Your task to perform on an android device: Go to Reddit.com Image 0: 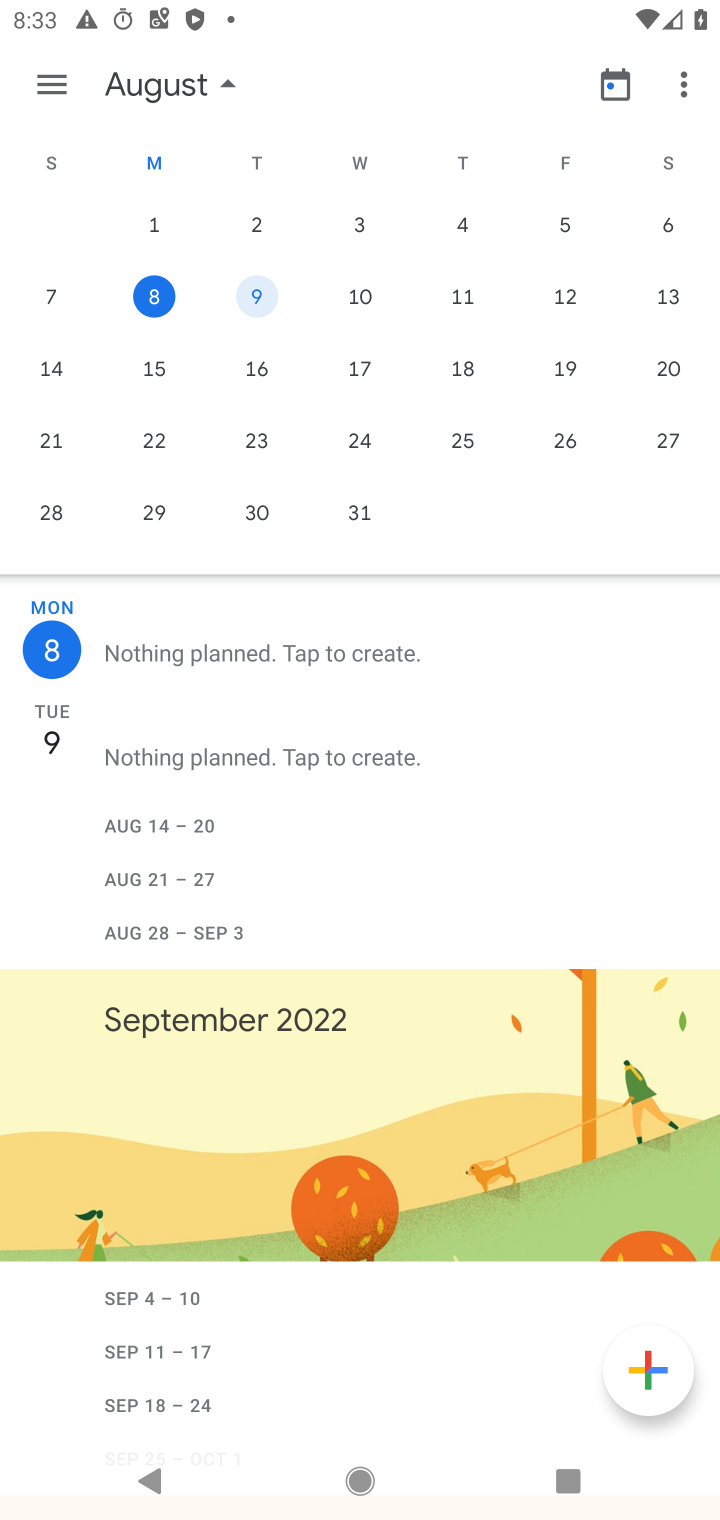
Step 0: press home button
Your task to perform on an android device: Go to Reddit.com Image 1: 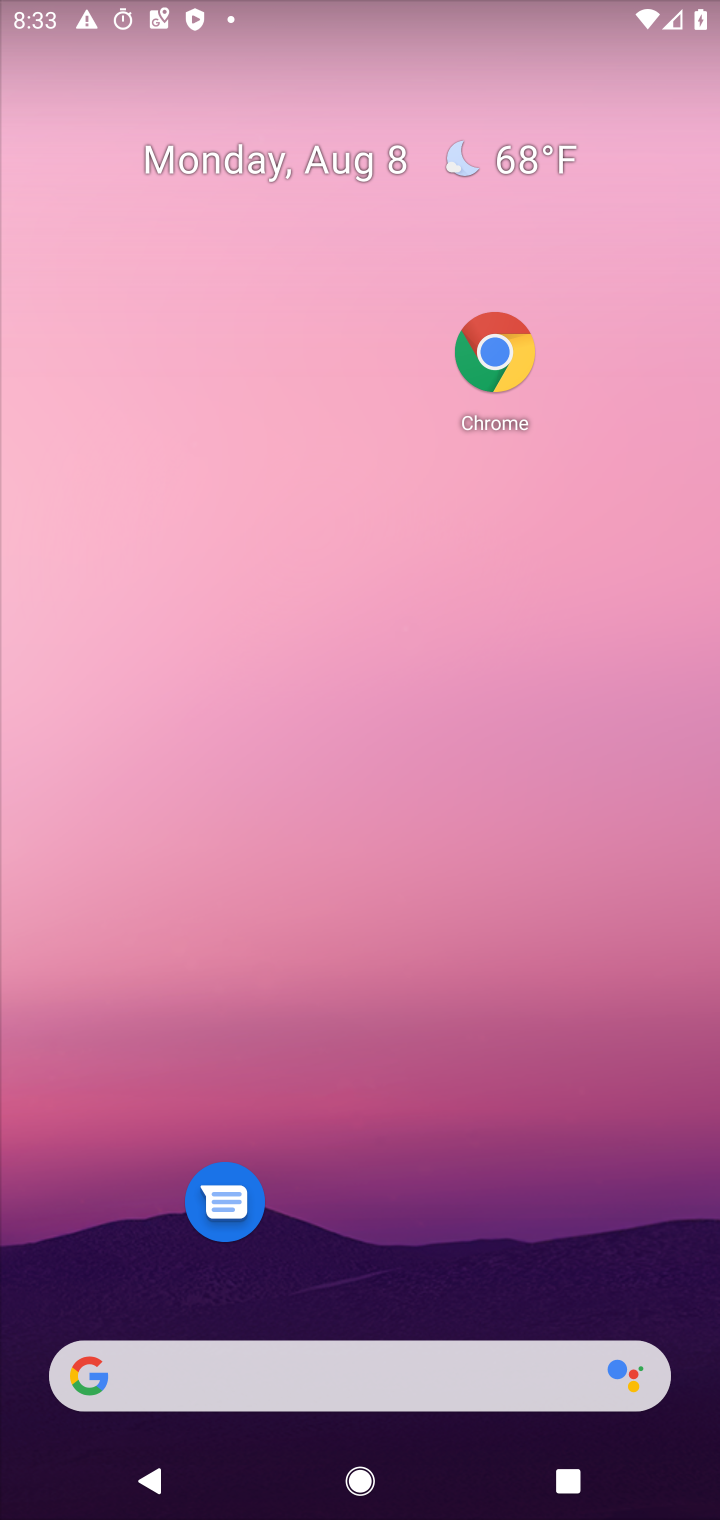
Step 1: click (499, 345)
Your task to perform on an android device: Go to Reddit.com Image 2: 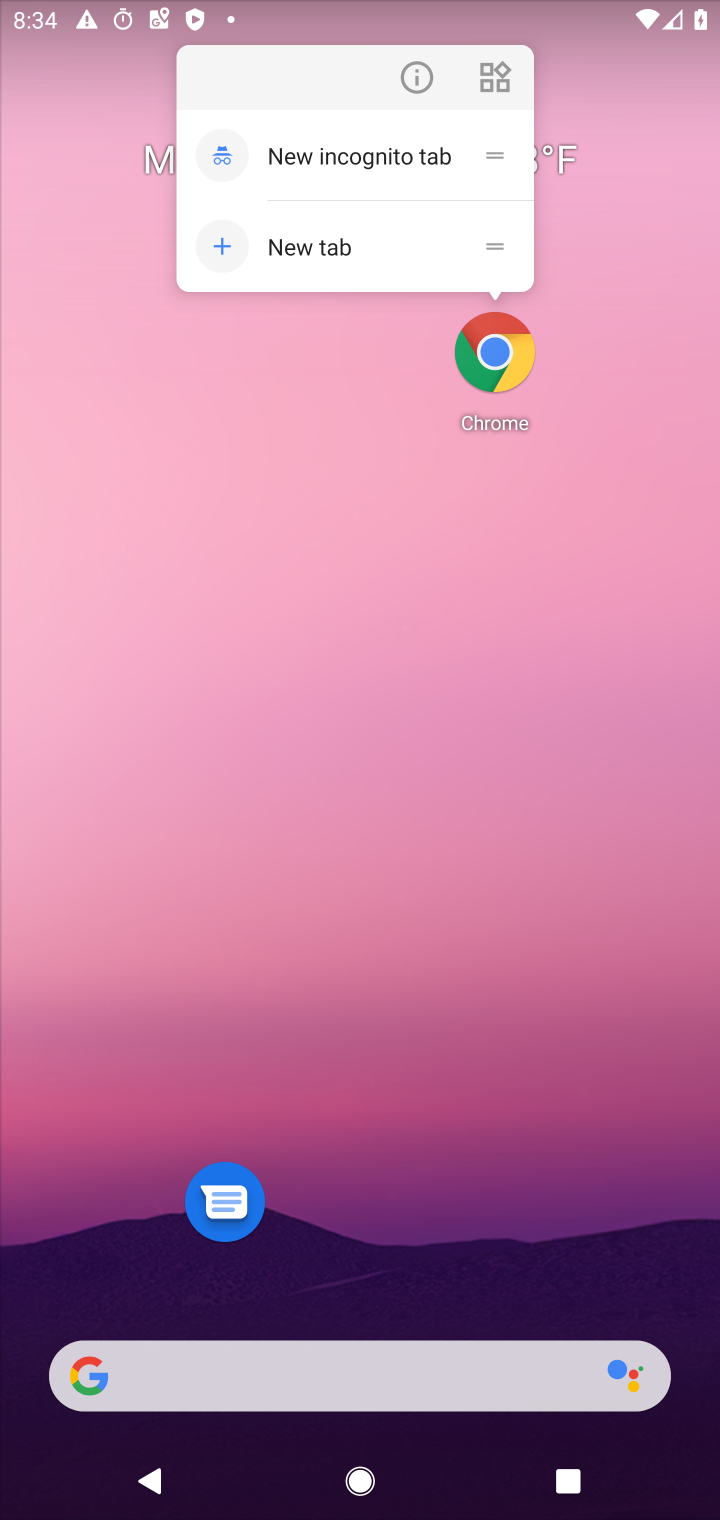
Step 2: click (500, 363)
Your task to perform on an android device: Go to Reddit.com Image 3: 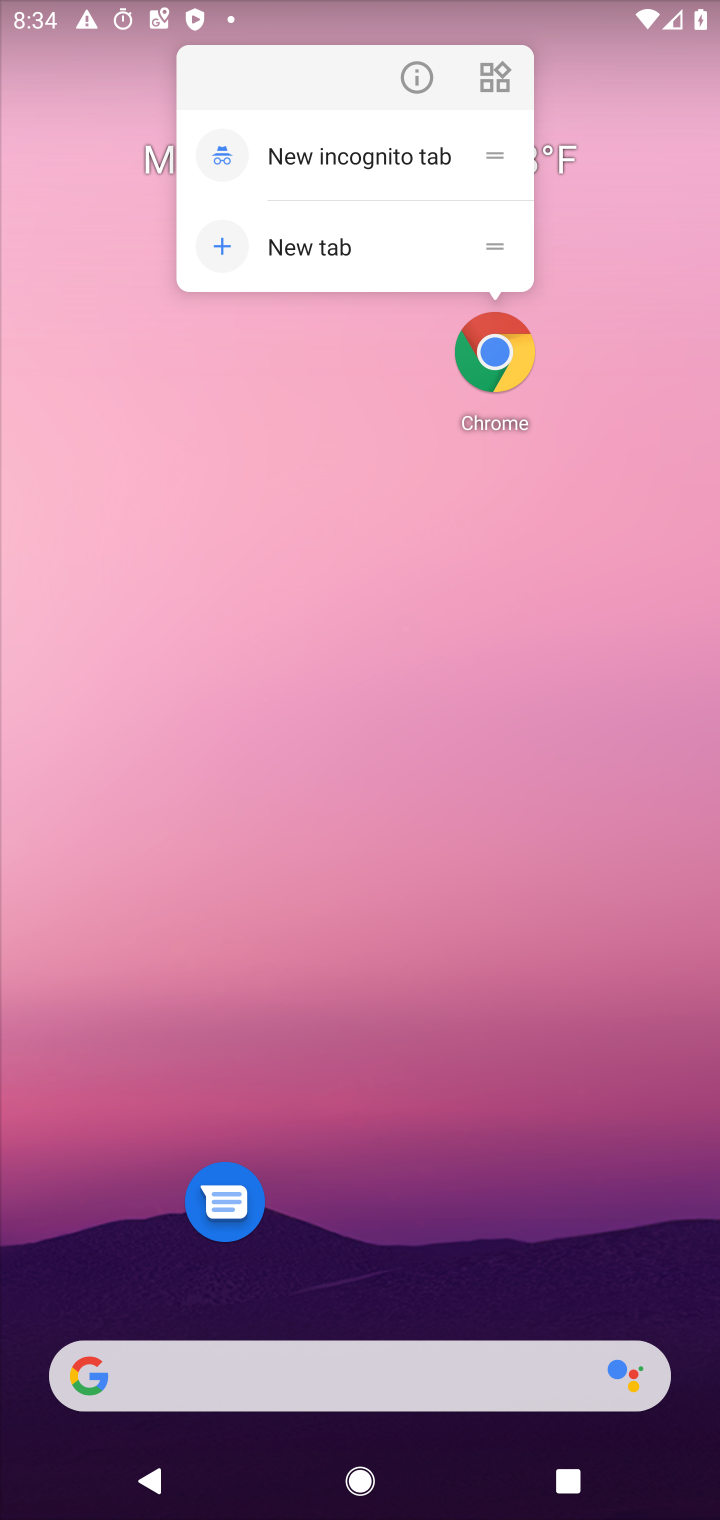
Step 3: click (505, 395)
Your task to perform on an android device: Go to Reddit.com Image 4: 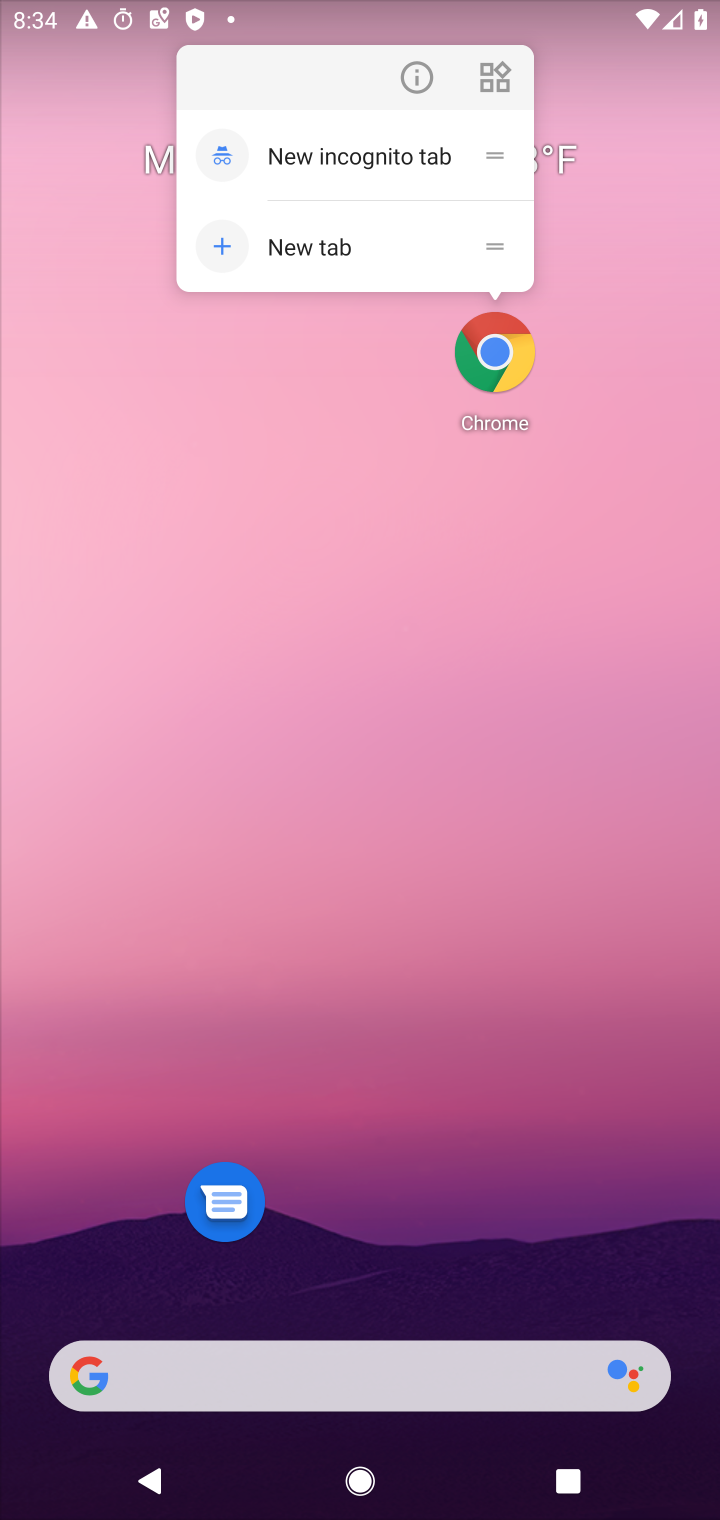
Step 4: click (516, 407)
Your task to perform on an android device: Go to Reddit.com Image 5: 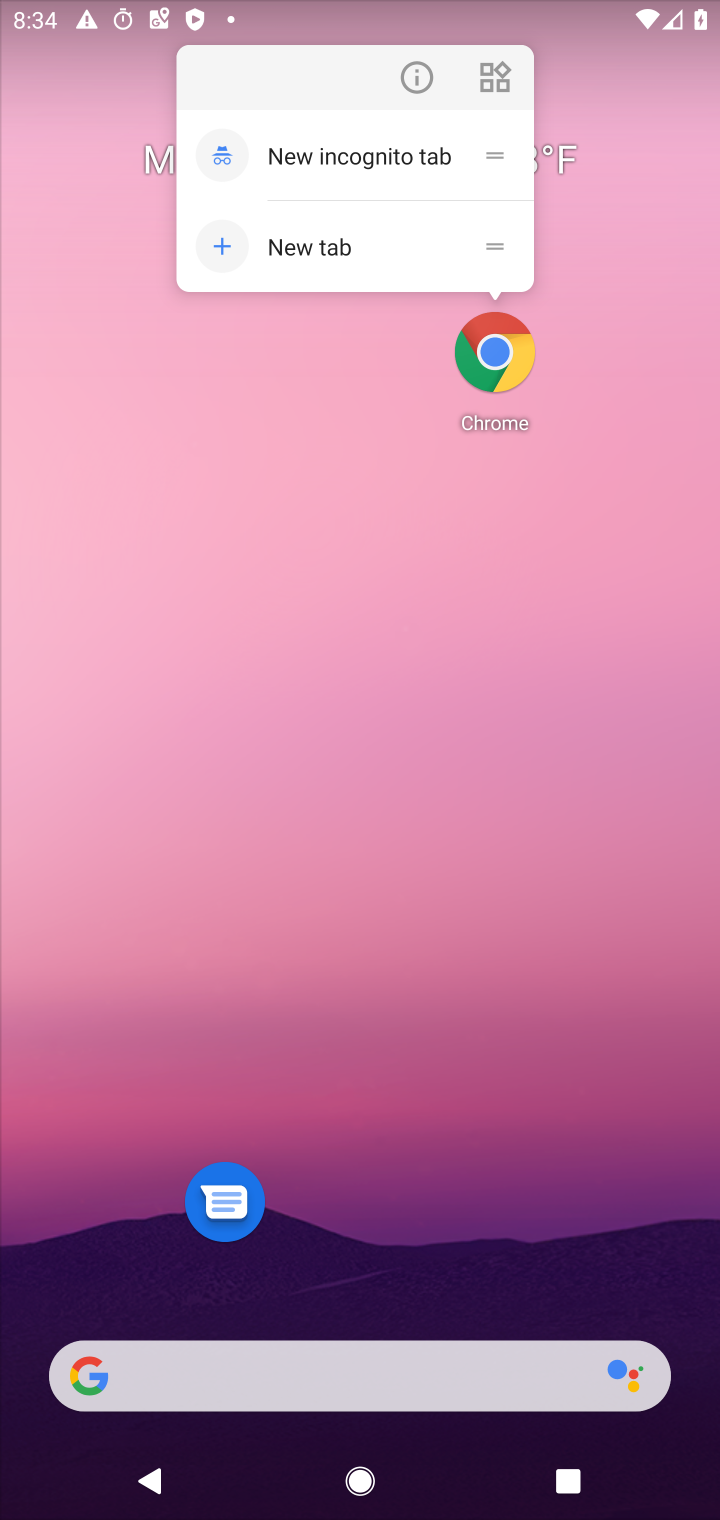
Step 5: click (518, 403)
Your task to perform on an android device: Go to Reddit.com Image 6: 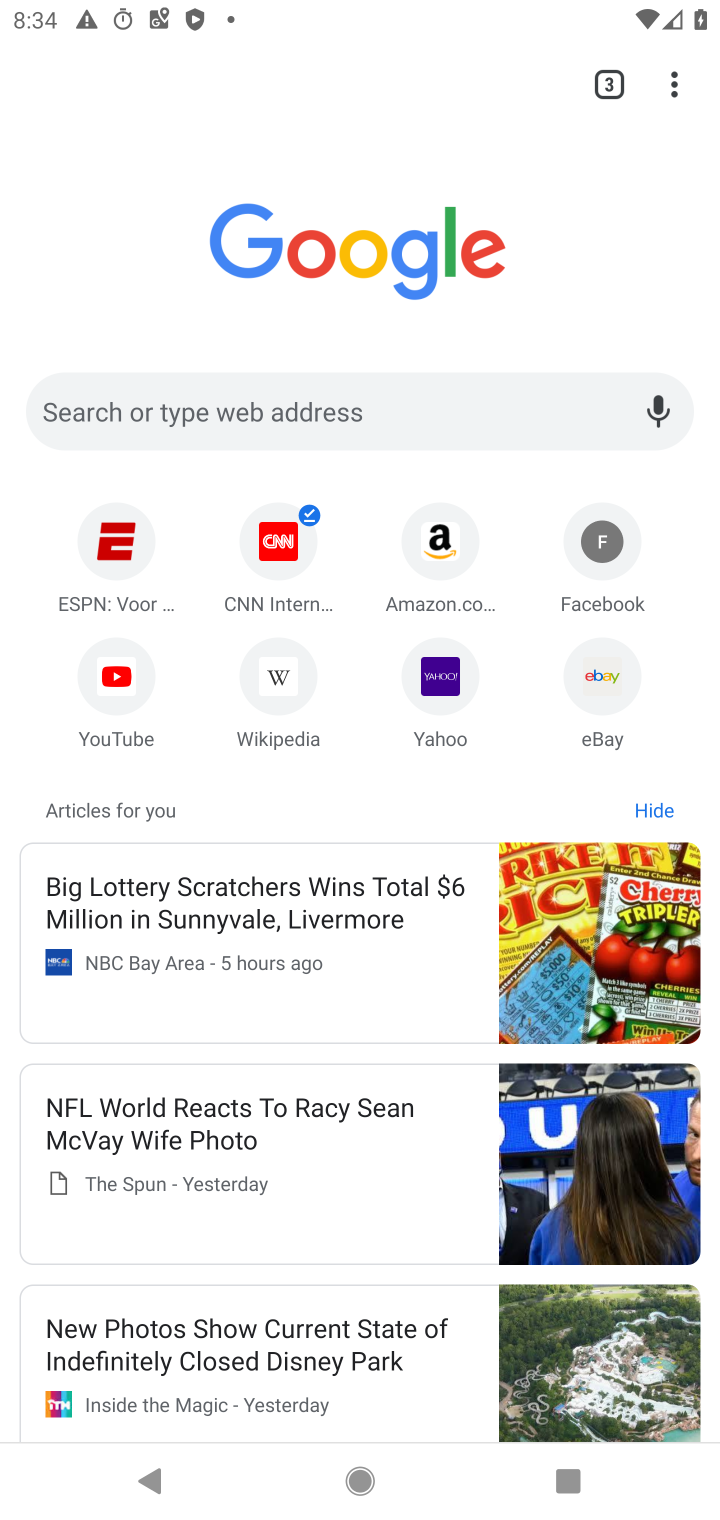
Step 6: click (418, 402)
Your task to perform on an android device: Go to Reddit.com Image 7: 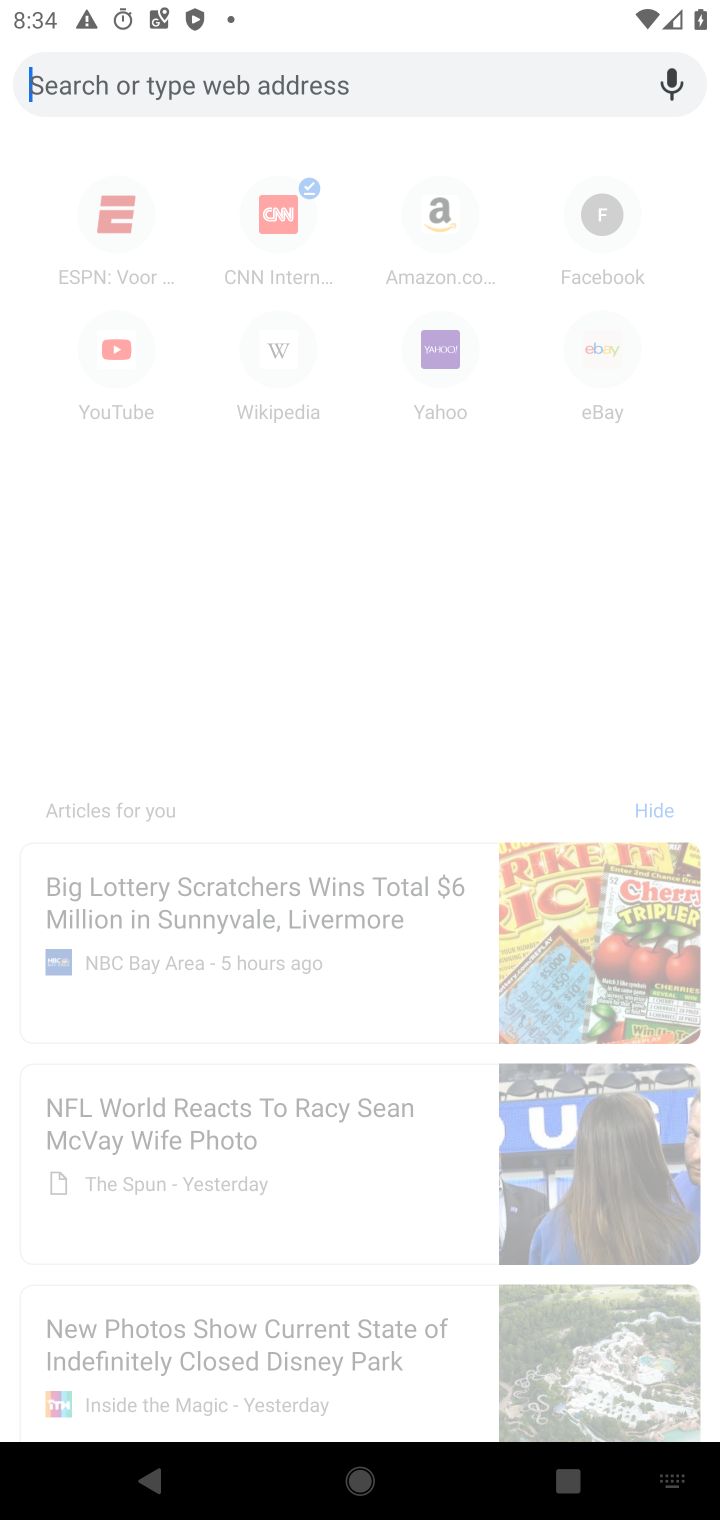
Step 7: type "reddit"
Your task to perform on an android device: Go to Reddit.com Image 8: 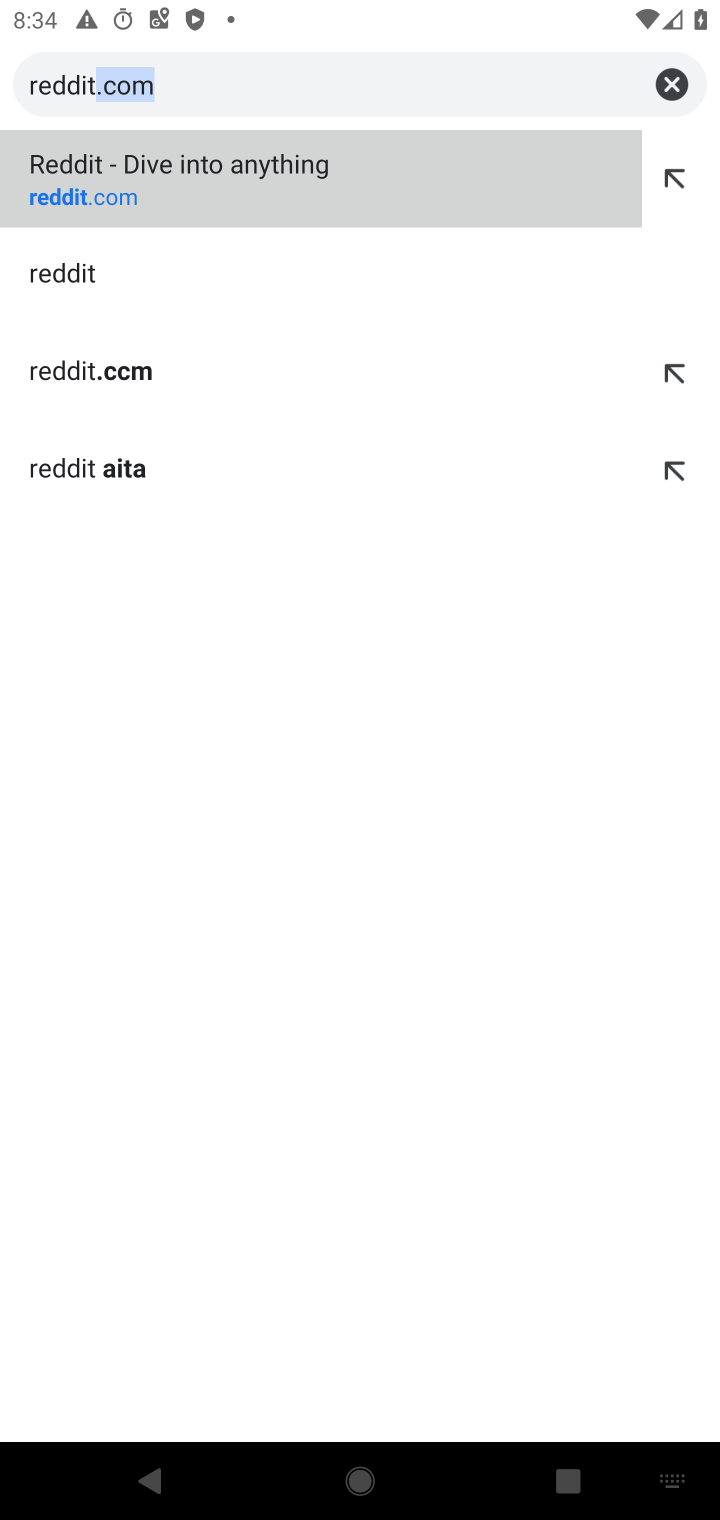
Step 8: click (301, 170)
Your task to perform on an android device: Go to Reddit.com Image 9: 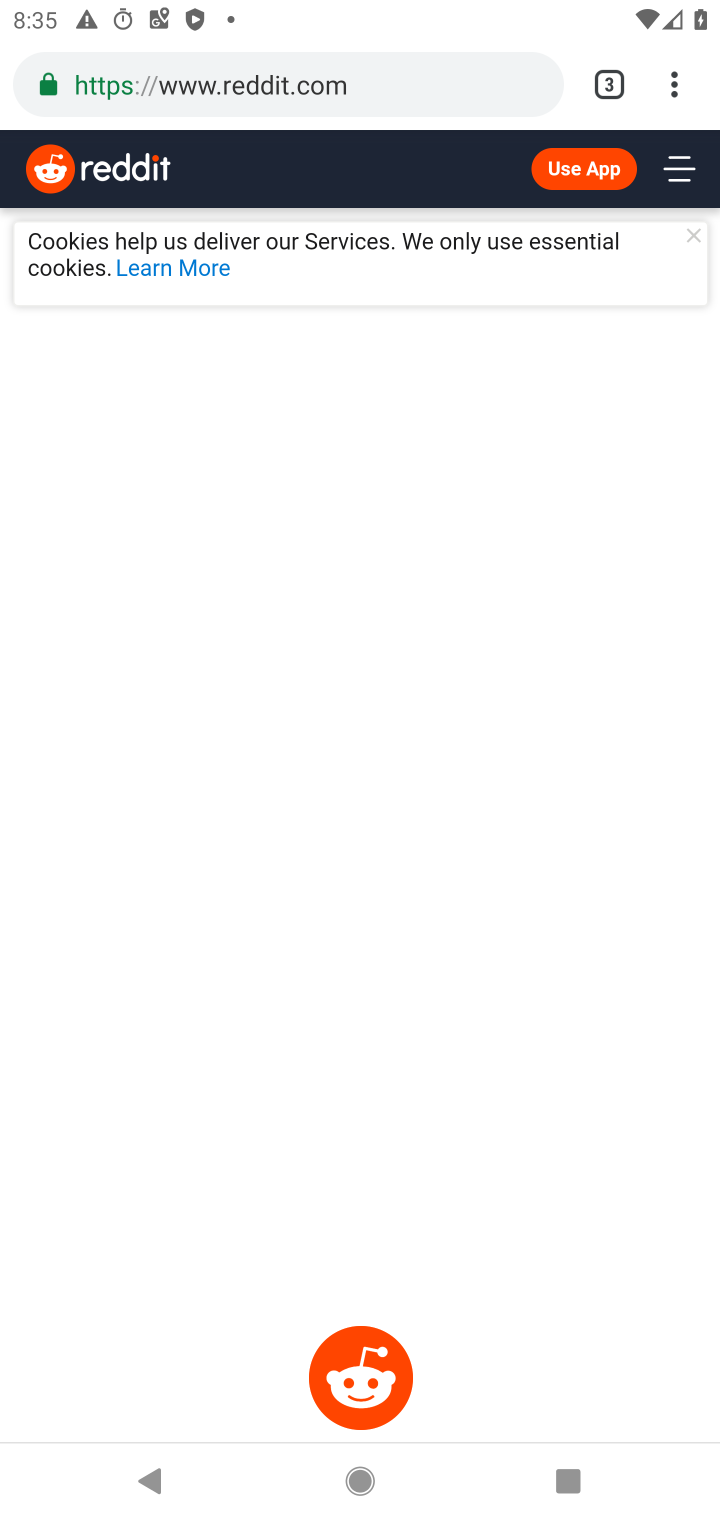
Step 9: task complete